Your task to perform on an android device: change your default location settings in chrome Image 0: 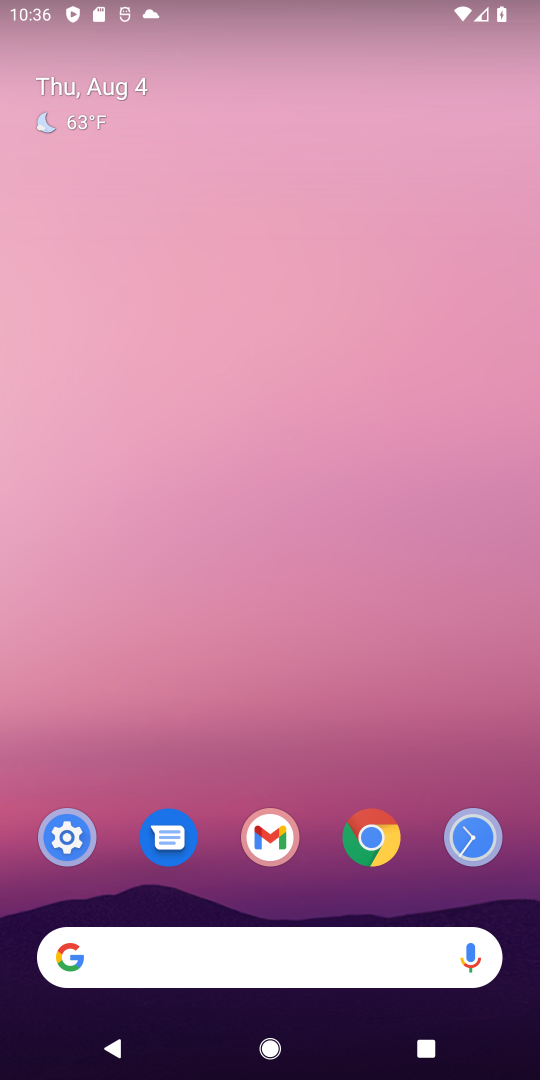
Step 0: drag from (185, 841) to (424, 19)
Your task to perform on an android device: change your default location settings in chrome Image 1: 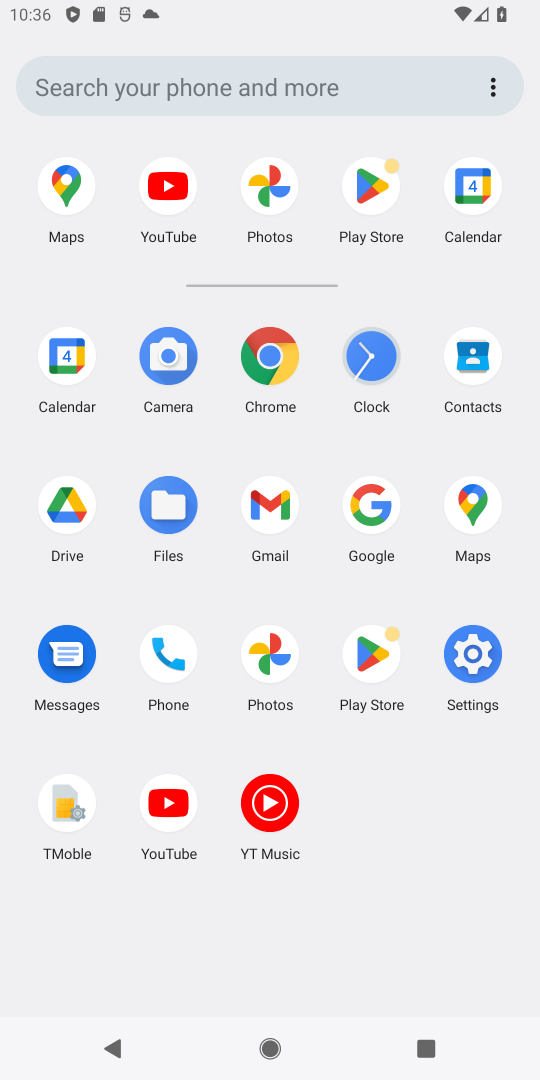
Step 1: click (266, 352)
Your task to perform on an android device: change your default location settings in chrome Image 2: 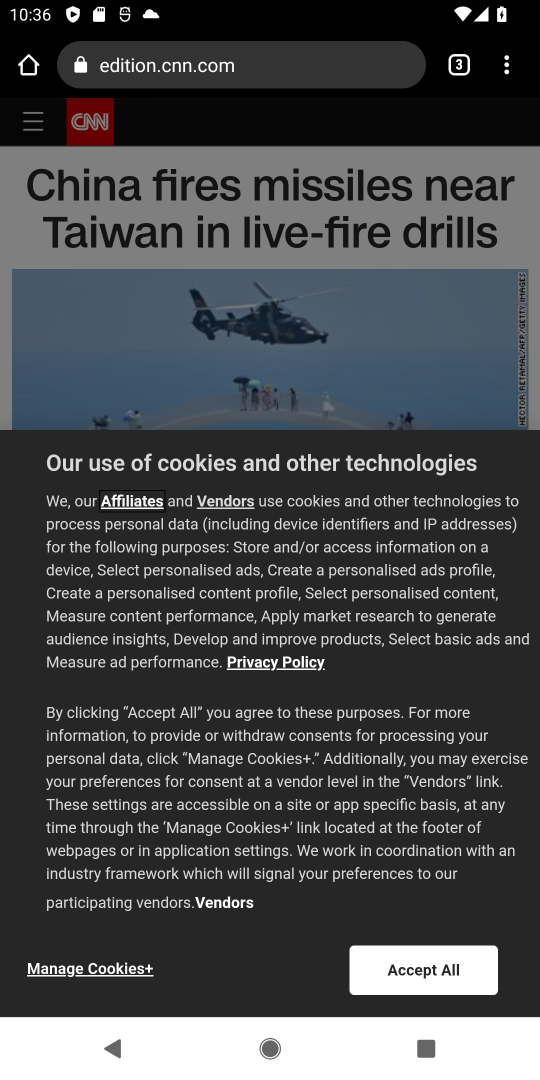
Step 2: click (512, 55)
Your task to perform on an android device: change your default location settings in chrome Image 3: 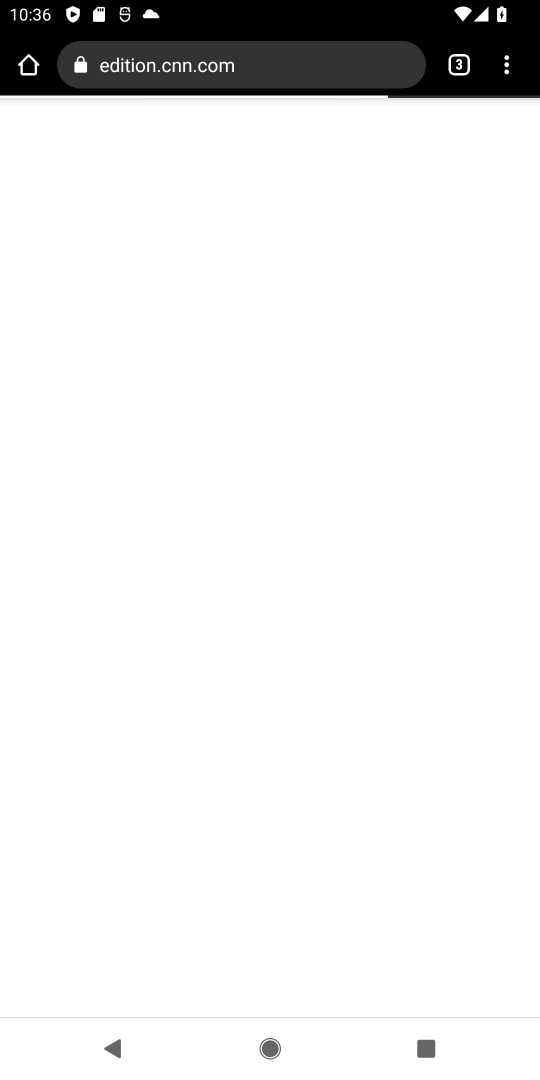
Step 3: click (509, 54)
Your task to perform on an android device: change your default location settings in chrome Image 4: 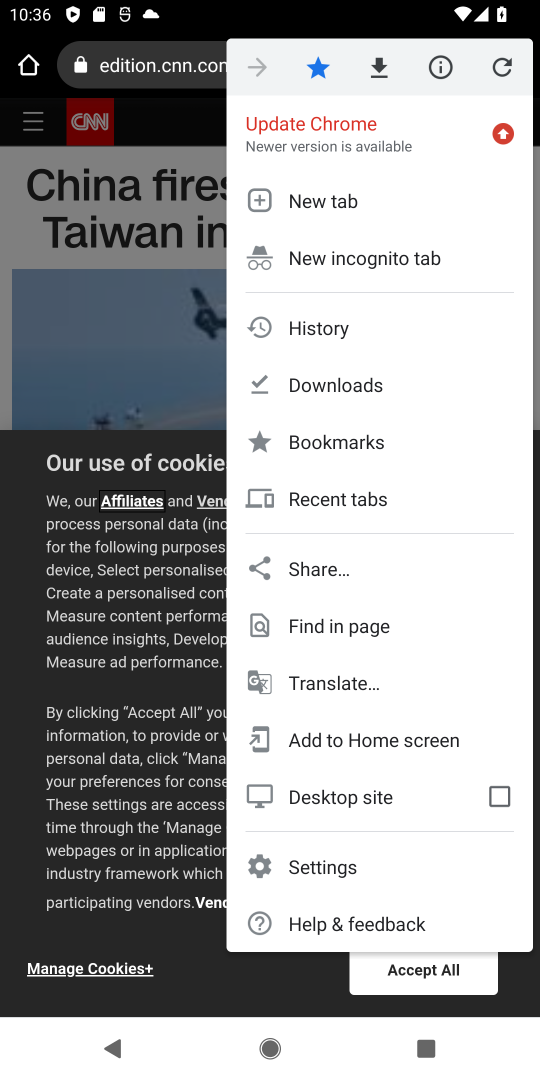
Step 4: click (354, 875)
Your task to perform on an android device: change your default location settings in chrome Image 5: 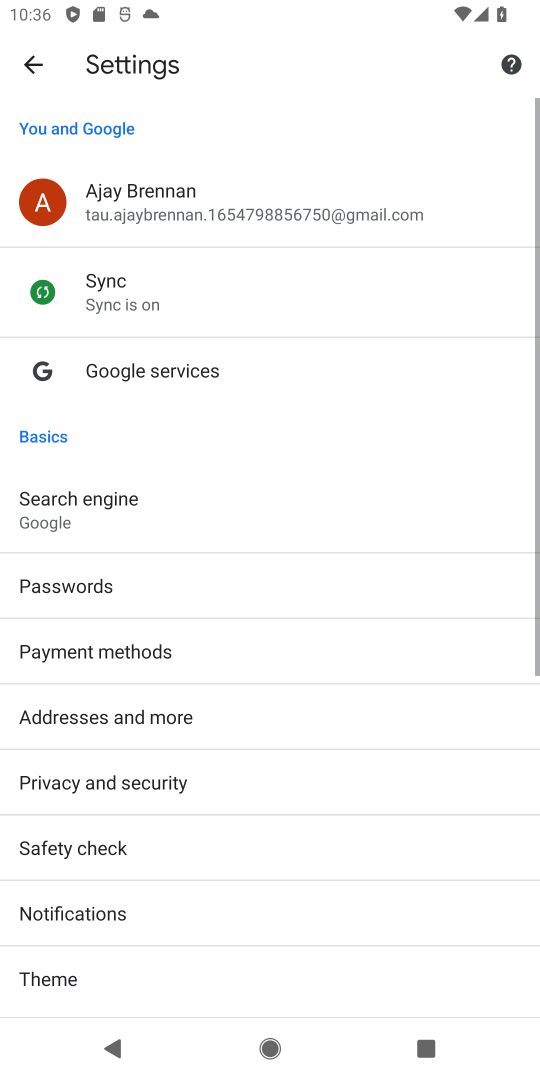
Step 5: drag from (137, 951) to (274, 301)
Your task to perform on an android device: change your default location settings in chrome Image 6: 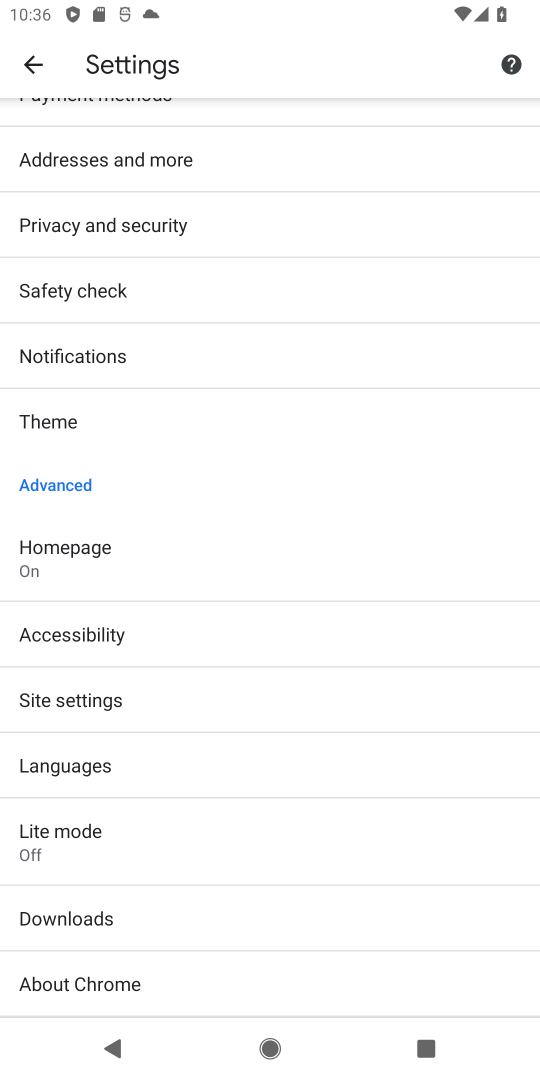
Step 6: click (116, 697)
Your task to perform on an android device: change your default location settings in chrome Image 7: 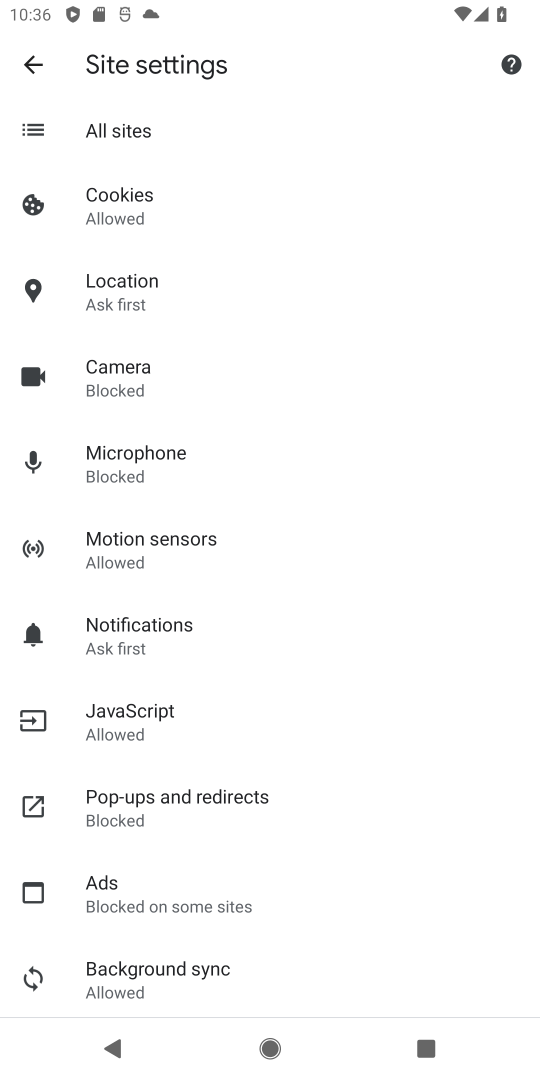
Step 7: click (151, 294)
Your task to perform on an android device: change your default location settings in chrome Image 8: 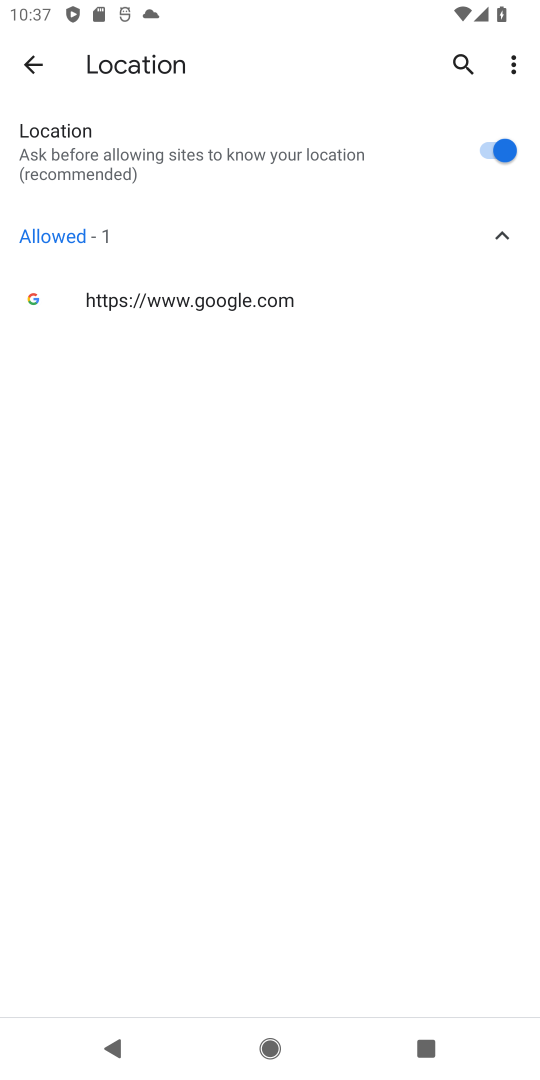
Step 8: click (499, 154)
Your task to perform on an android device: change your default location settings in chrome Image 9: 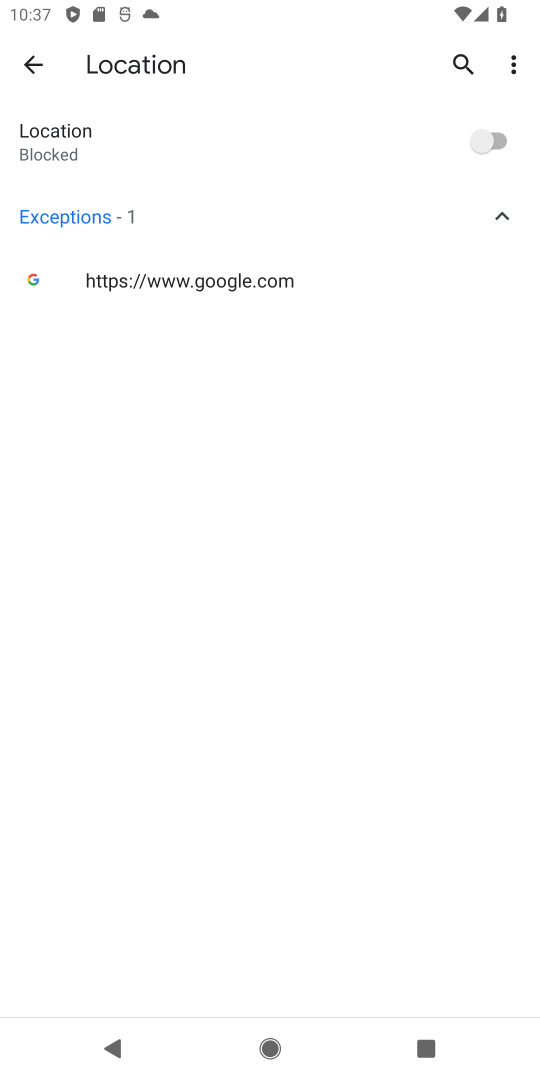
Step 9: task complete